Your task to perform on an android device: delete the emails in spam in the gmail app Image 0: 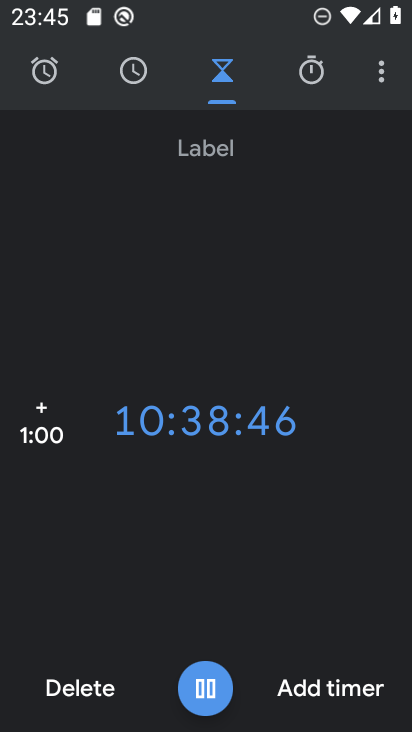
Step 0: press home button
Your task to perform on an android device: delete the emails in spam in the gmail app Image 1: 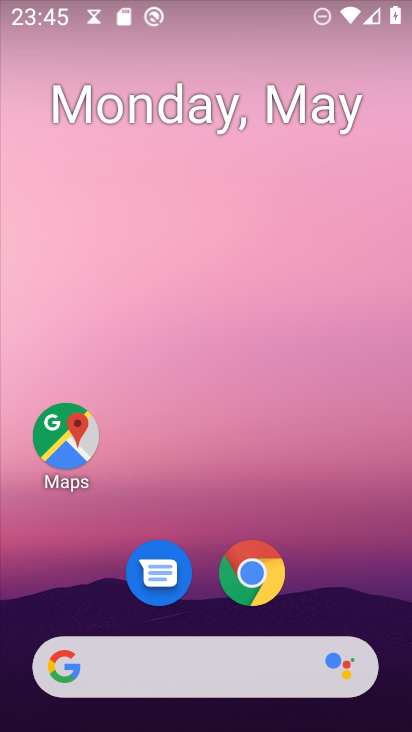
Step 1: drag from (324, 557) to (228, 103)
Your task to perform on an android device: delete the emails in spam in the gmail app Image 2: 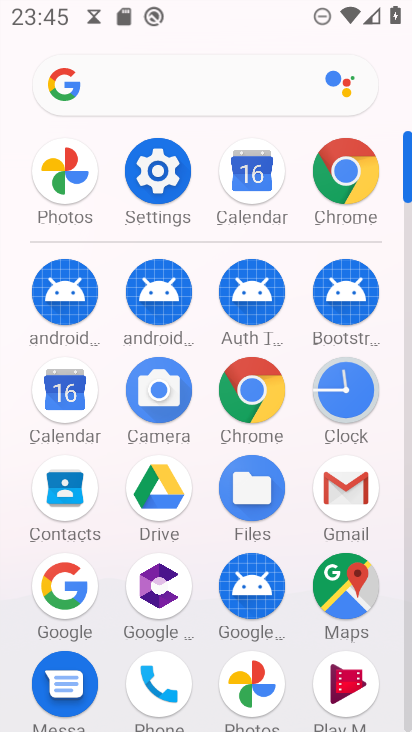
Step 2: click (359, 494)
Your task to perform on an android device: delete the emails in spam in the gmail app Image 3: 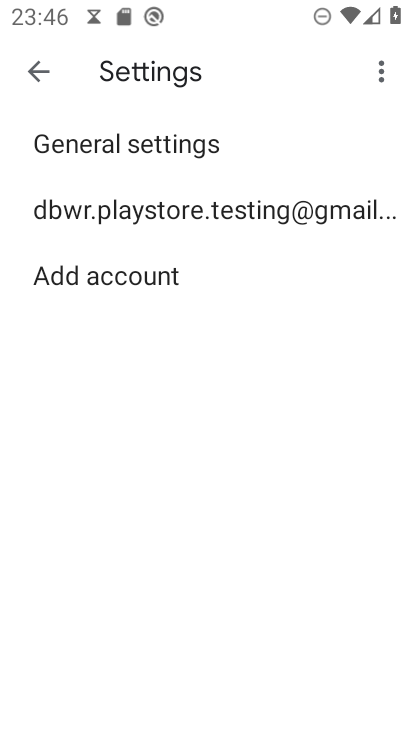
Step 3: click (30, 59)
Your task to perform on an android device: delete the emails in spam in the gmail app Image 4: 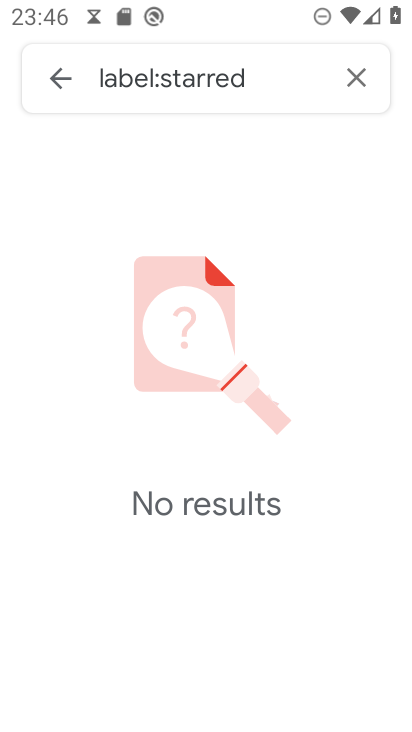
Step 4: click (48, 73)
Your task to perform on an android device: delete the emails in spam in the gmail app Image 5: 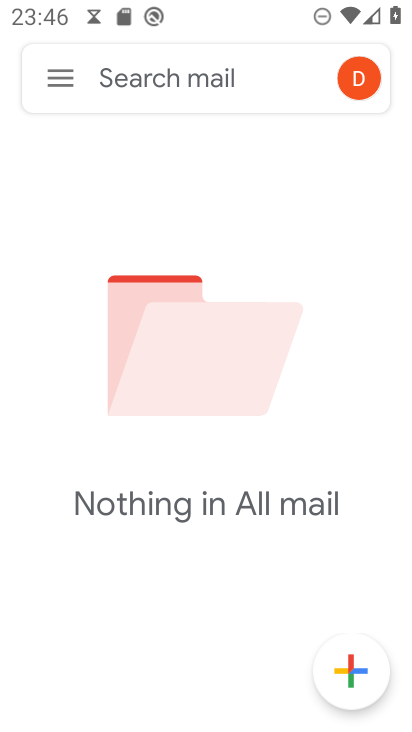
Step 5: click (48, 73)
Your task to perform on an android device: delete the emails in spam in the gmail app Image 6: 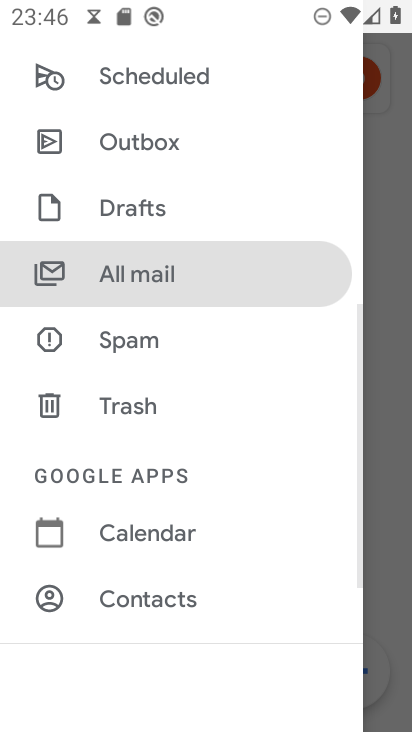
Step 6: click (164, 317)
Your task to perform on an android device: delete the emails in spam in the gmail app Image 7: 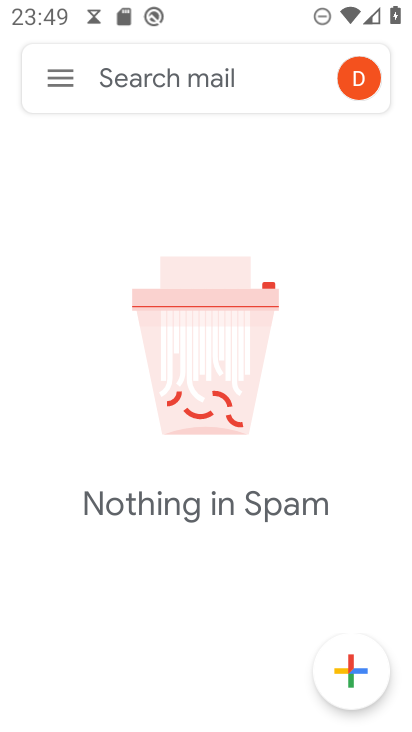
Step 7: task complete